Your task to perform on an android device: clear history in the chrome app Image 0: 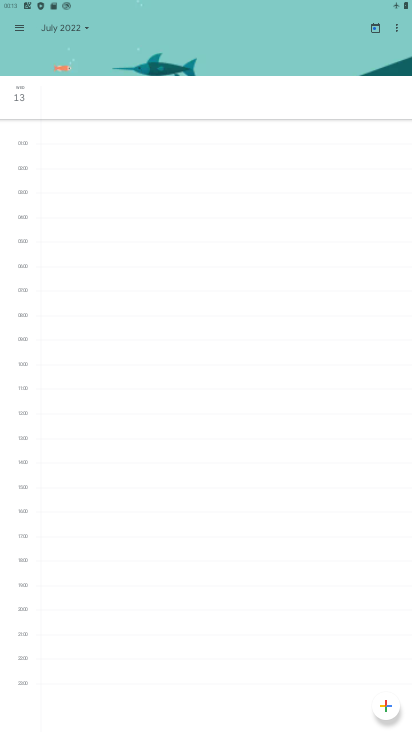
Step 0: press home button
Your task to perform on an android device: clear history in the chrome app Image 1: 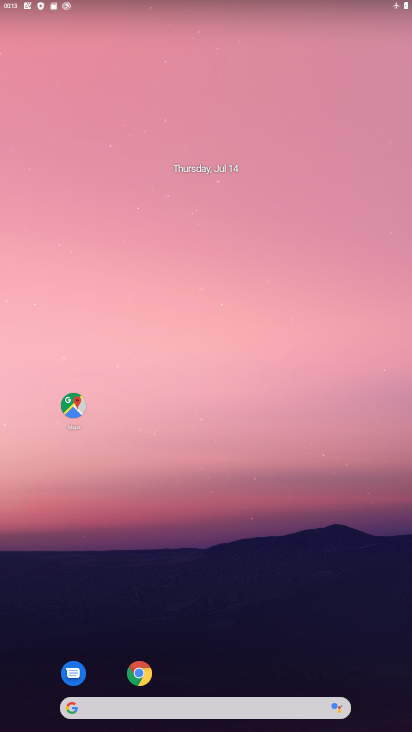
Step 1: click (142, 676)
Your task to perform on an android device: clear history in the chrome app Image 2: 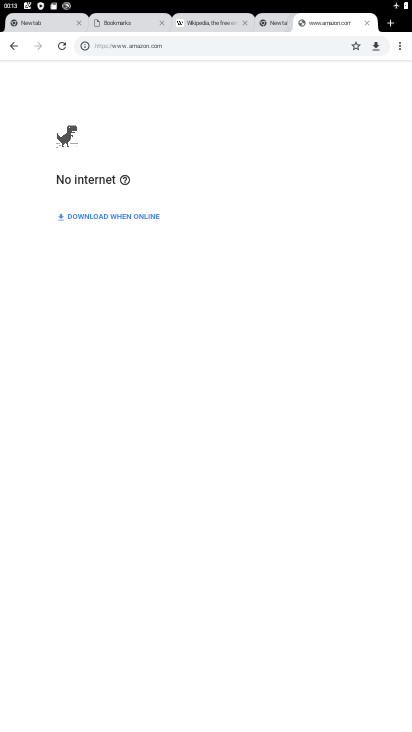
Step 2: click (397, 48)
Your task to perform on an android device: clear history in the chrome app Image 3: 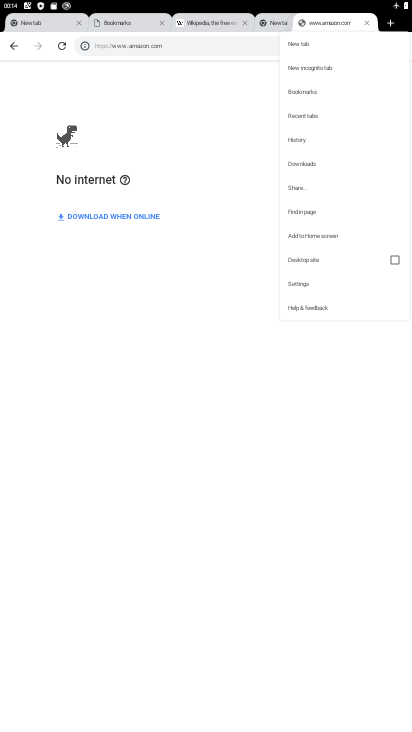
Step 3: click (299, 136)
Your task to perform on an android device: clear history in the chrome app Image 4: 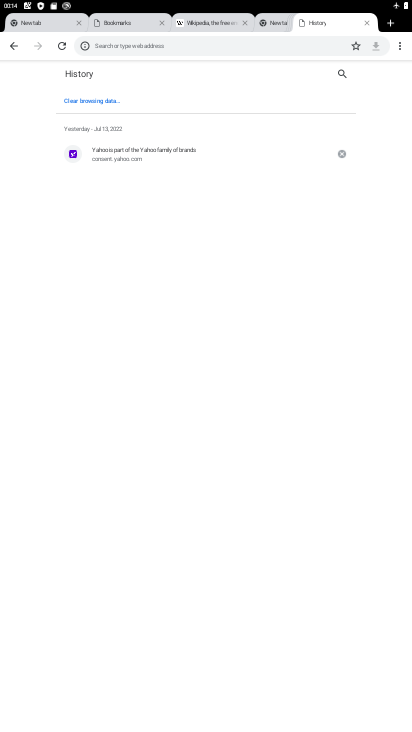
Step 4: click (81, 102)
Your task to perform on an android device: clear history in the chrome app Image 5: 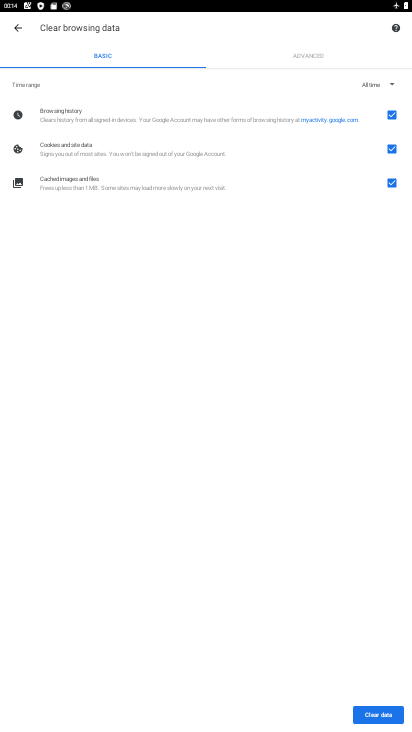
Step 5: click (380, 711)
Your task to perform on an android device: clear history in the chrome app Image 6: 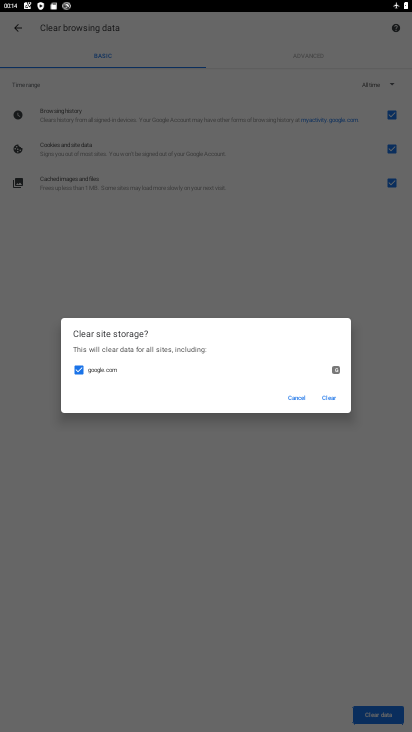
Step 6: click (334, 397)
Your task to perform on an android device: clear history in the chrome app Image 7: 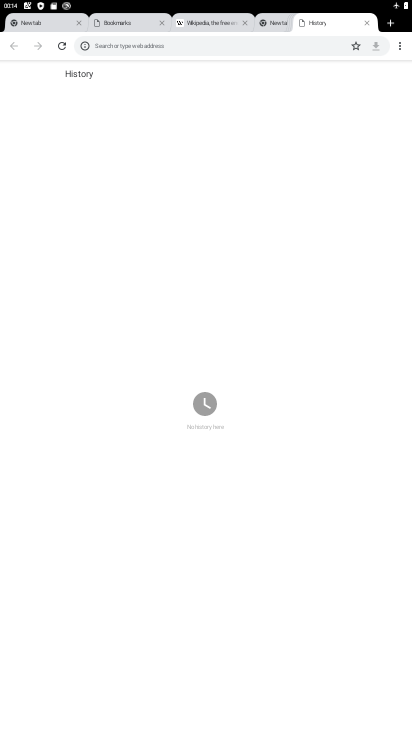
Step 7: task complete